Your task to perform on an android device: open the mobile data screen to see how much data has been used Image 0: 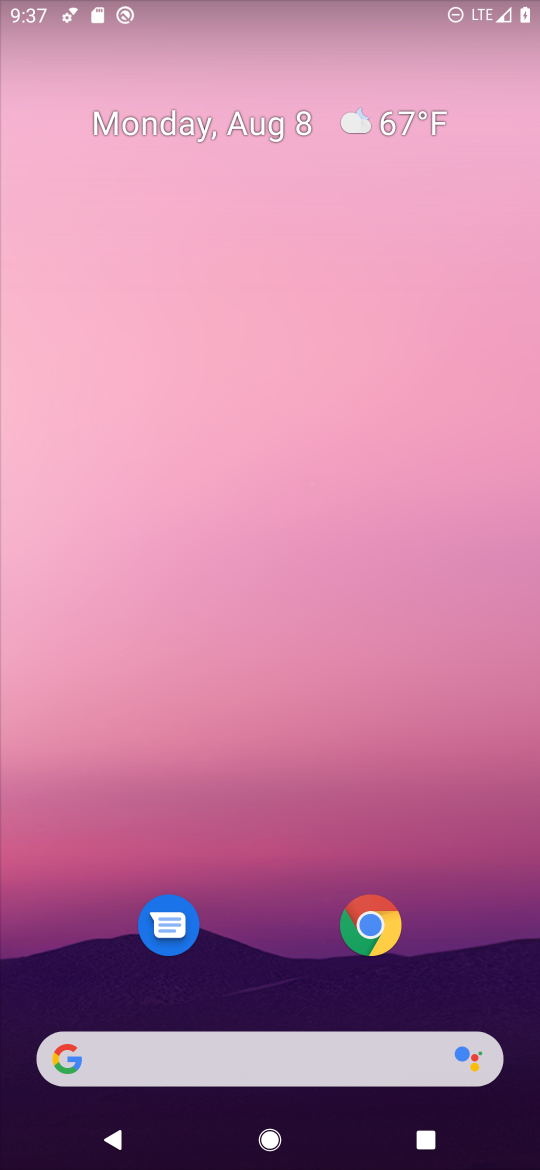
Step 0: drag from (250, 963) to (289, 163)
Your task to perform on an android device: open the mobile data screen to see how much data has been used Image 1: 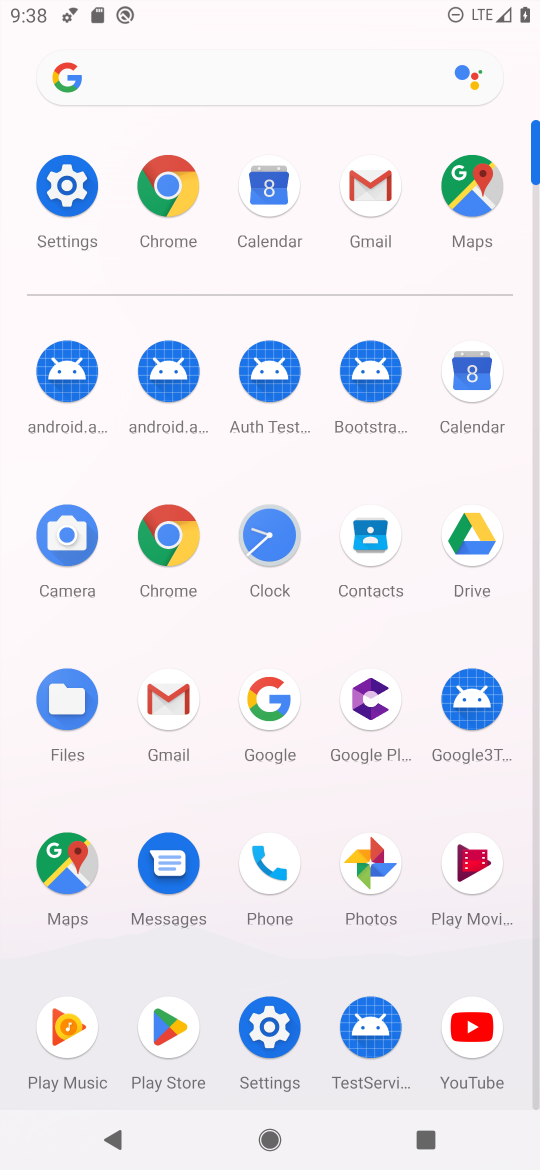
Step 1: click (265, 1027)
Your task to perform on an android device: open the mobile data screen to see how much data has been used Image 2: 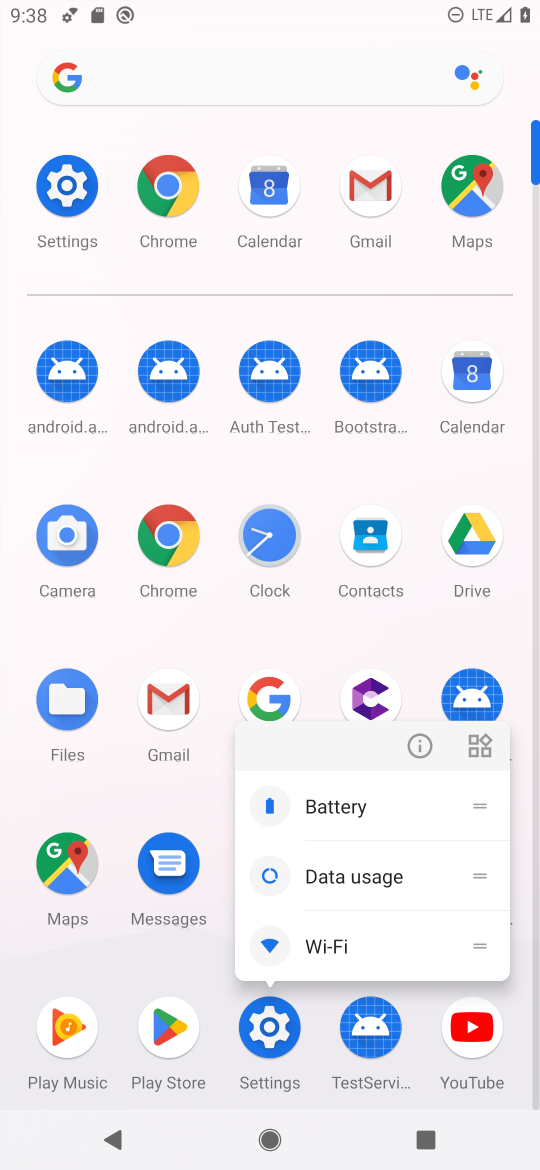
Step 2: click (271, 1034)
Your task to perform on an android device: open the mobile data screen to see how much data has been used Image 3: 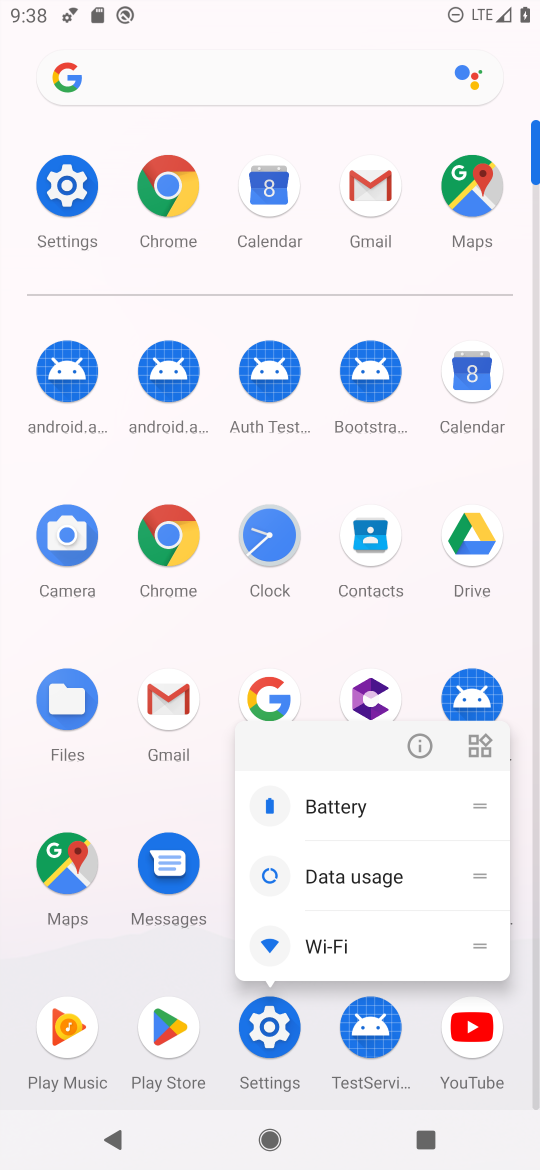
Step 3: click (271, 1034)
Your task to perform on an android device: open the mobile data screen to see how much data has been used Image 4: 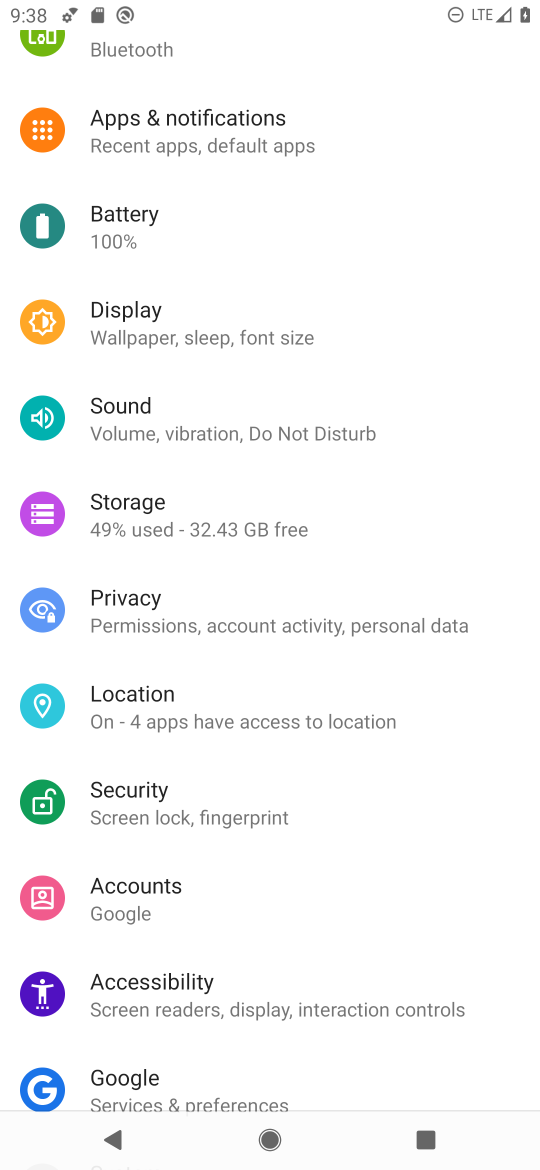
Step 4: drag from (229, 203) to (258, 825)
Your task to perform on an android device: open the mobile data screen to see how much data has been used Image 5: 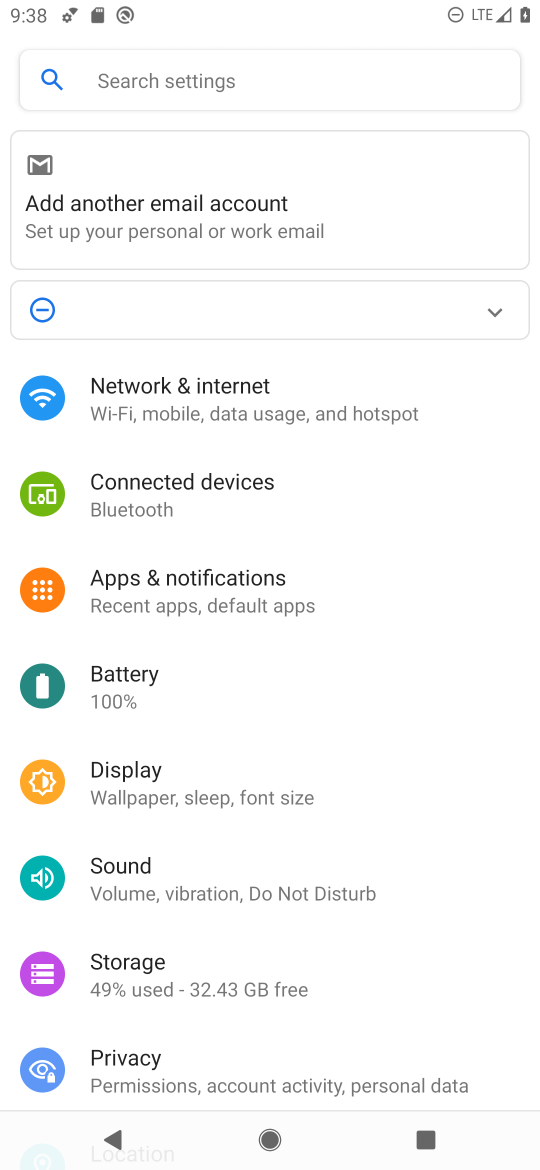
Step 5: click (172, 431)
Your task to perform on an android device: open the mobile data screen to see how much data has been used Image 6: 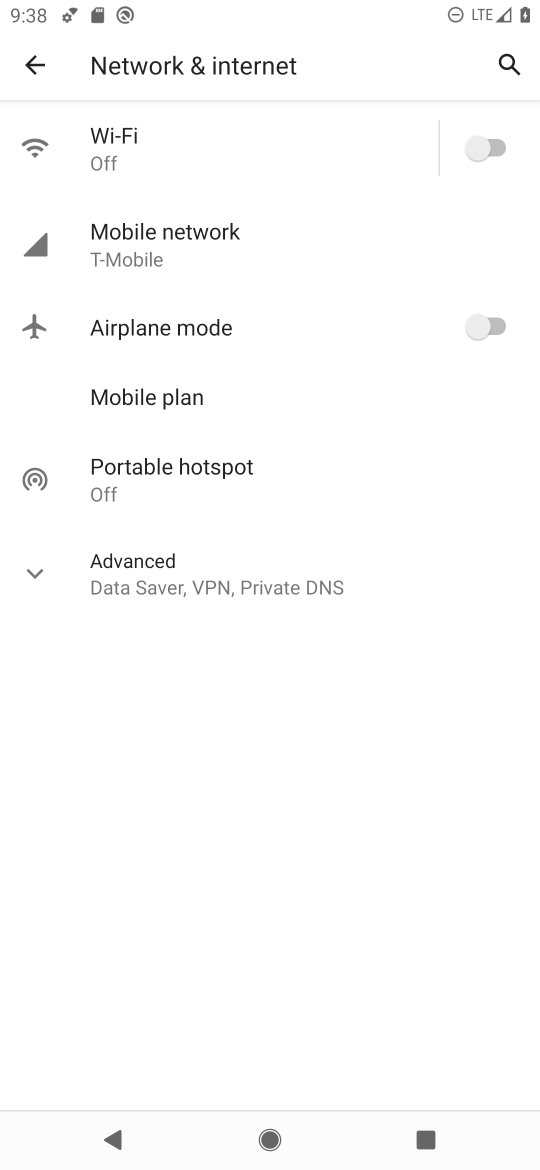
Step 6: click (179, 264)
Your task to perform on an android device: open the mobile data screen to see how much data has been used Image 7: 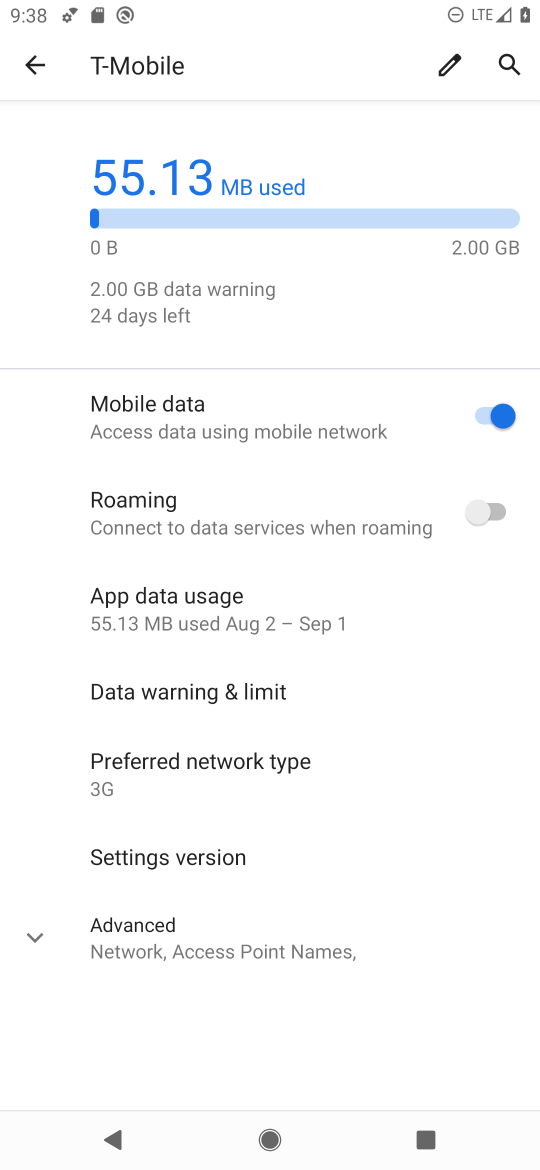
Step 7: task complete